Your task to perform on an android device: Go to internet settings Image 0: 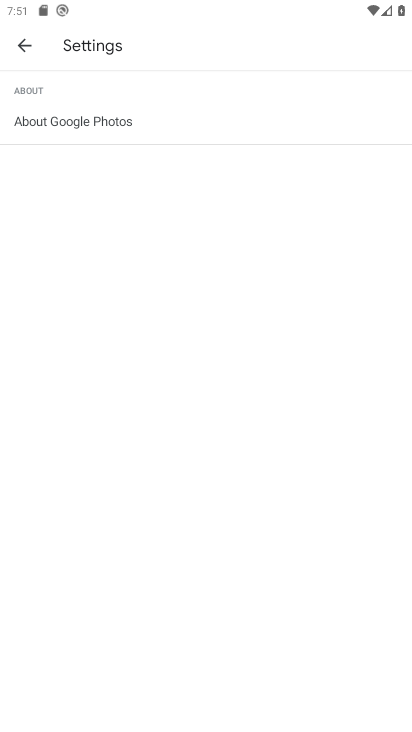
Step 0: press home button
Your task to perform on an android device: Go to internet settings Image 1: 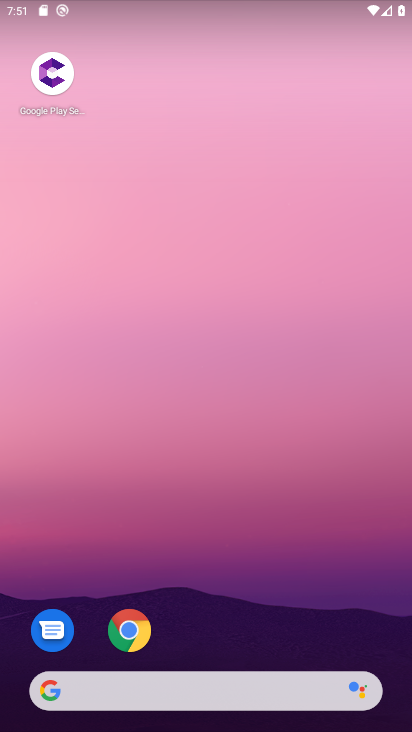
Step 1: drag from (196, 629) to (205, 209)
Your task to perform on an android device: Go to internet settings Image 2: 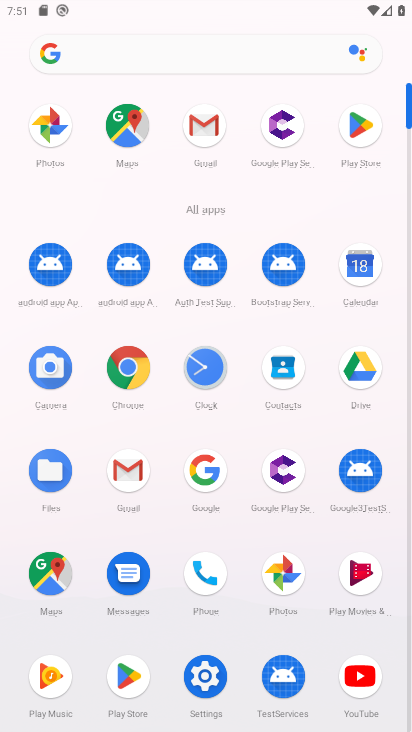
Step 2: click (197, 677)
Your task to perform on an android device: Go to internet settings Image 3: 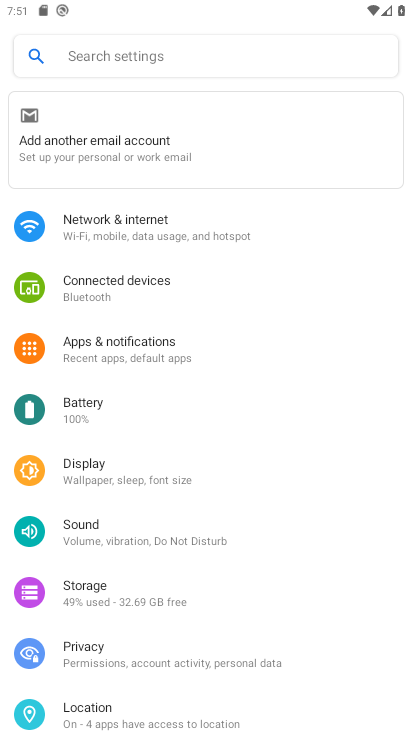
Step 3: click (165, 234)
Your task to perform on an android device: Go to internet settings Image 4: 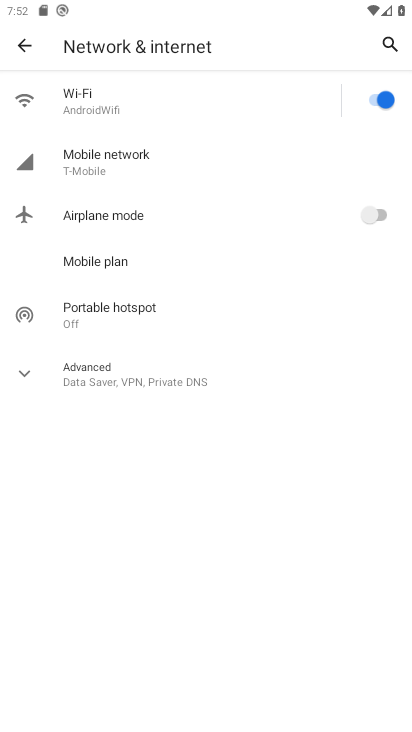
Step 4: task complete